Your task to perform on an android device: check google app version Image 0: 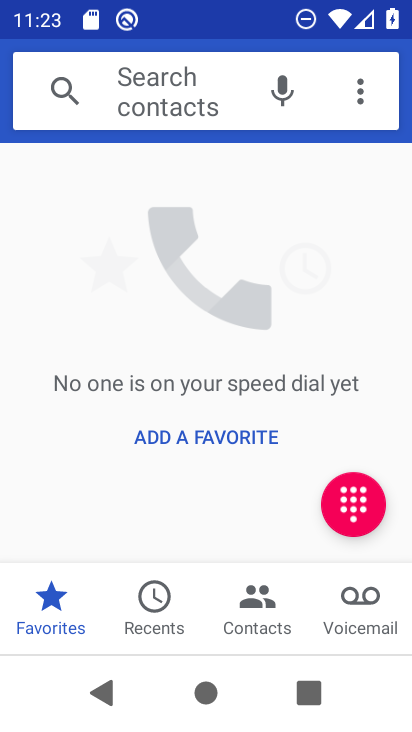
Step 0: press home button
Your task to perform on an android device: check google app version Image 1: 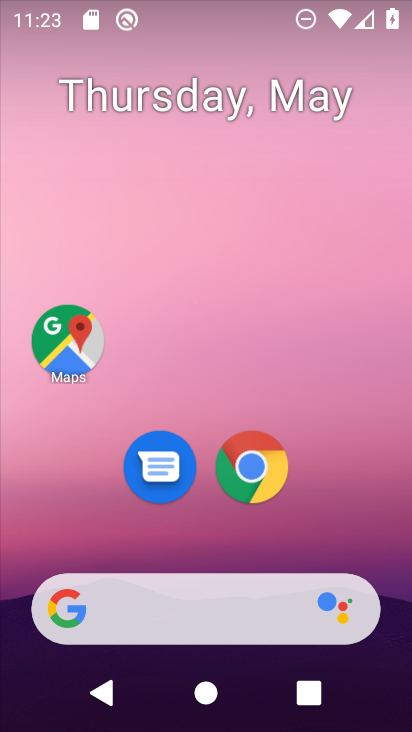
Step 1: drag from (213, 532) to (213, 162)
Your task to perform on an android device: check google app version Image 2: 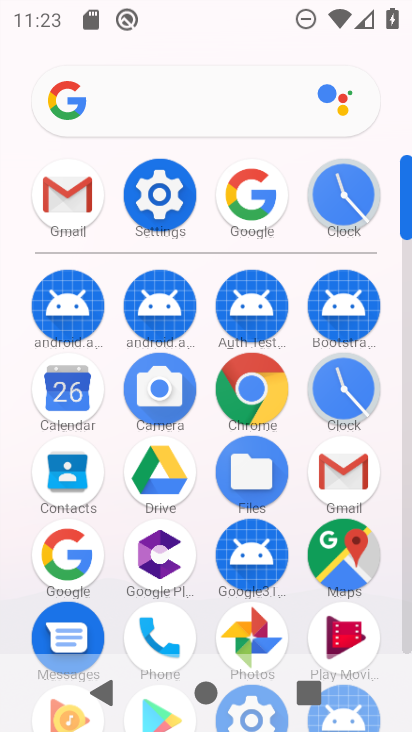
Step 2: drag from (217, 257) to (230, 80)
Your task to perform on an android device: check google app version Image 3: 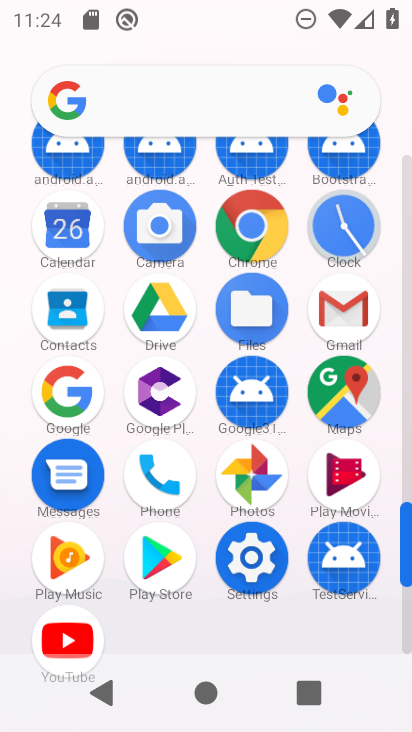
Step 3: click (77, 383)
Your task to perform on an android device: check google app version Image 4: 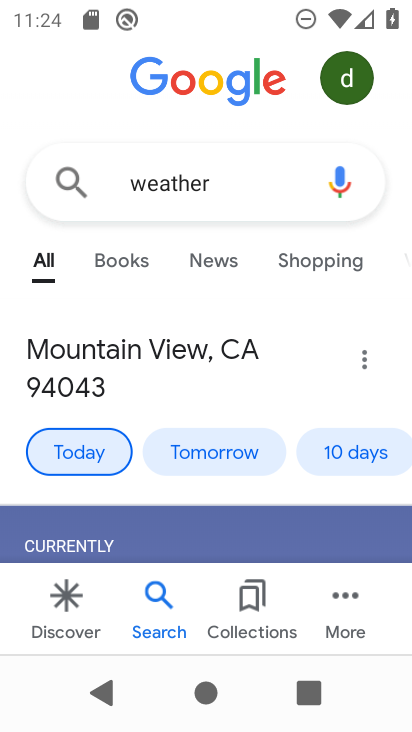
Step 4: click (351, 612)
Your task to perform on an android device: check google app version Image 5: 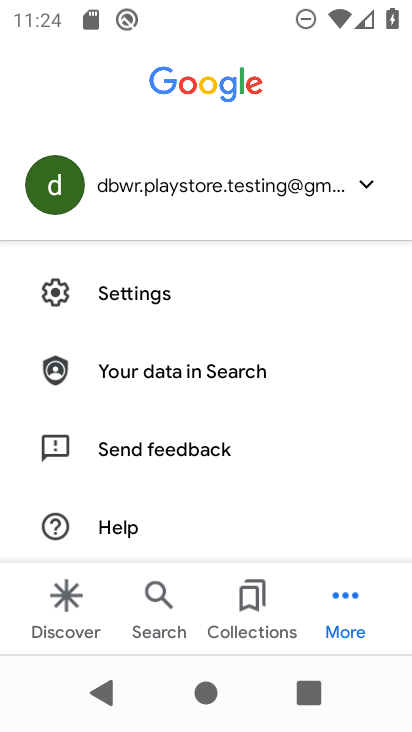
Step 5: click (222, 307)
Your task to perform on an android device: check google app version Image 6: 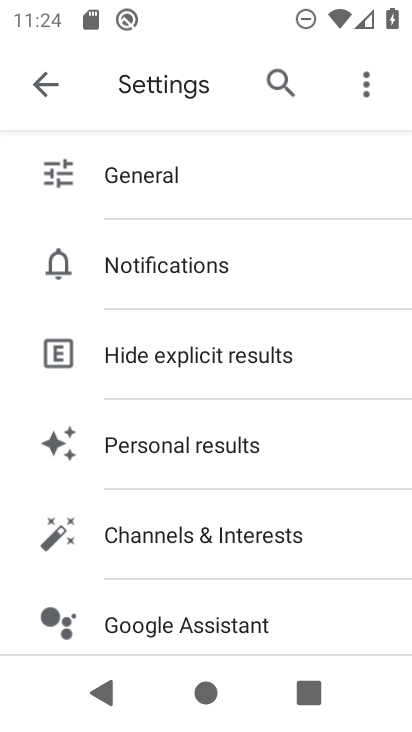
Step 6: drag from (177, 570) to (221, 107)
Your task to perform on an android device: check google app version Image 7: 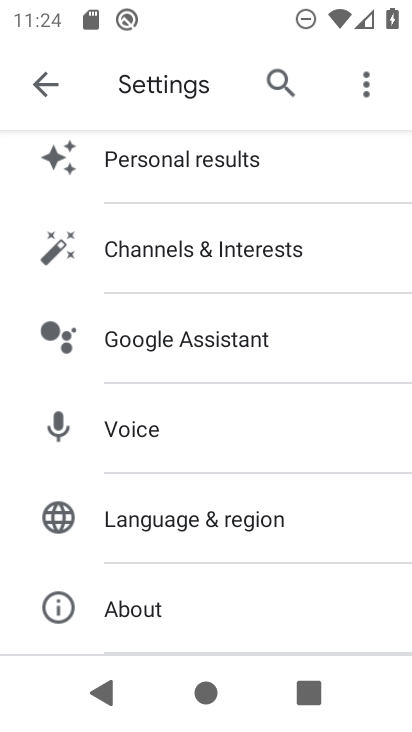
Step 7: click (161, 613)
Your task to perform on an android device: check google app version Image 8: 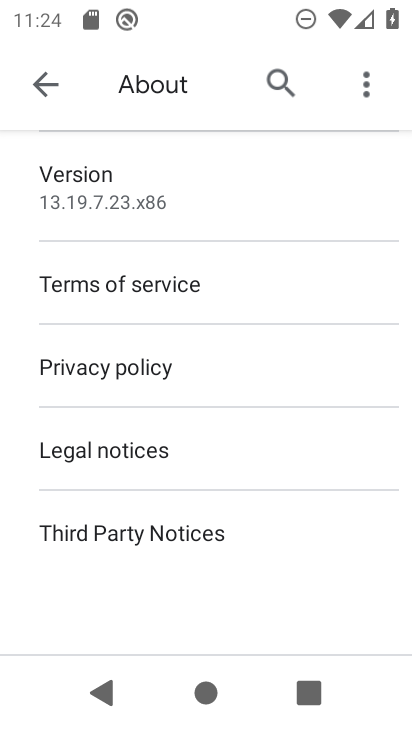
Step 8: task complete